Your task to perform on an android device: Open privacy settings Image 0: 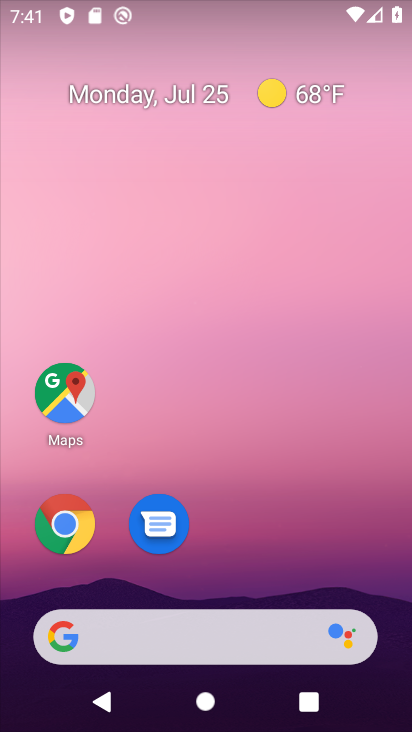
Step 0: drag from (296, 539) to (340, 14)
Your task to perform on an android device: Open privacy settings Image 1: 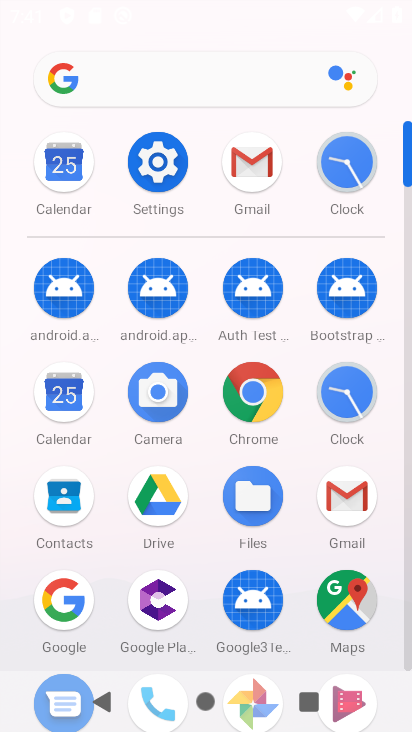
Step 1: click (171, 160)
Your task to perform on an android device: Open privacy settings Image 2: 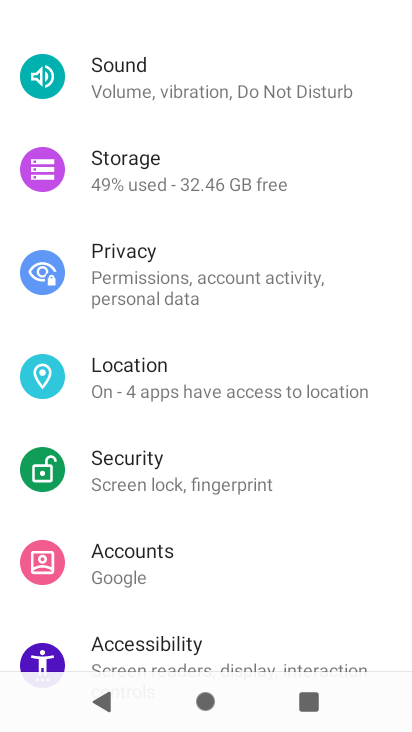
Step 2: click (232, 277)
Your task to perform on an android device: Open privacy settings Image 3: 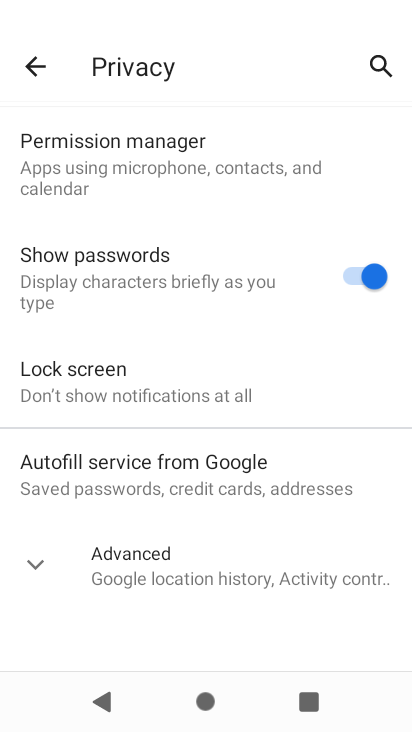
Step 3: task complete